Your task to perform on an android device: uninstall "DoorDash - Dasher" Image 0: 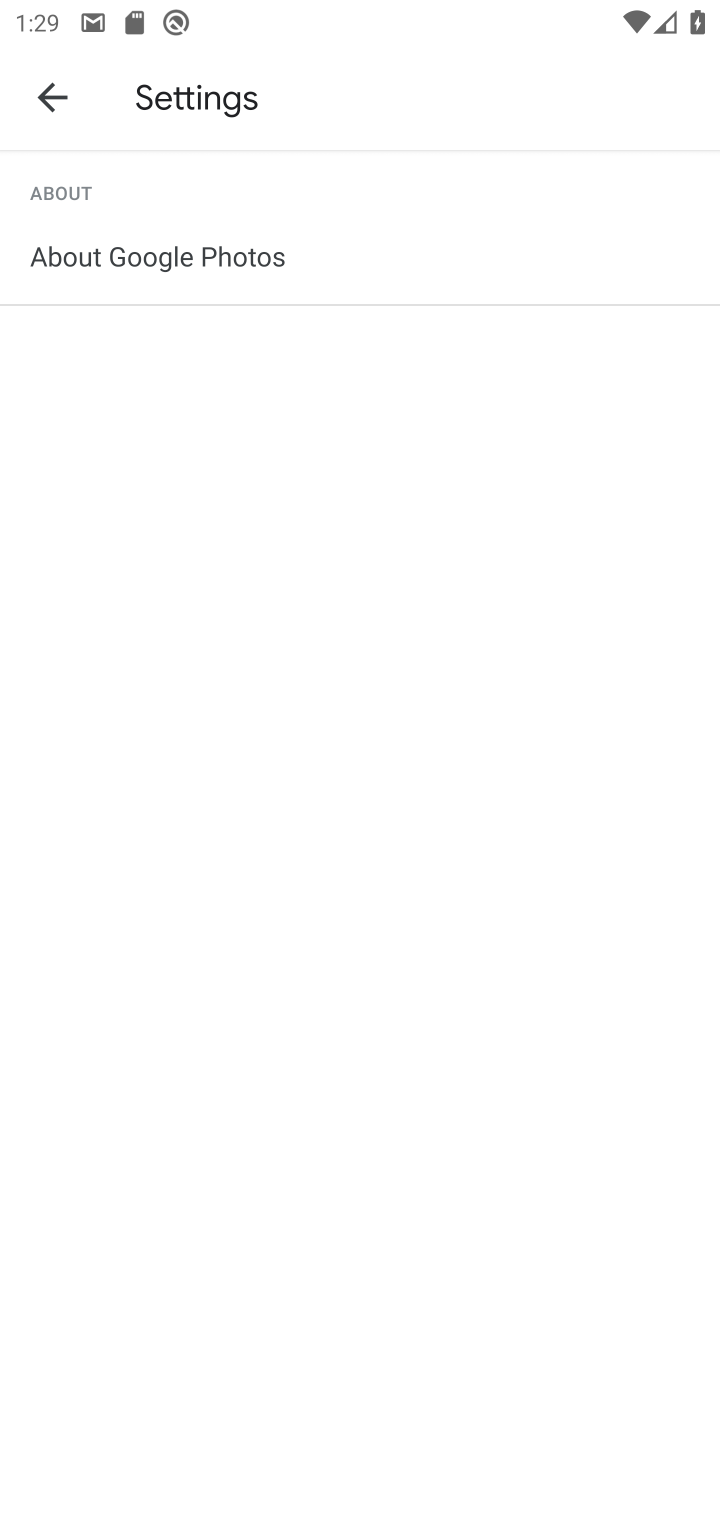
Step 0: press home button
Your task to perform on an android device: uninstall "DoorDash - Dasher" Image 1: 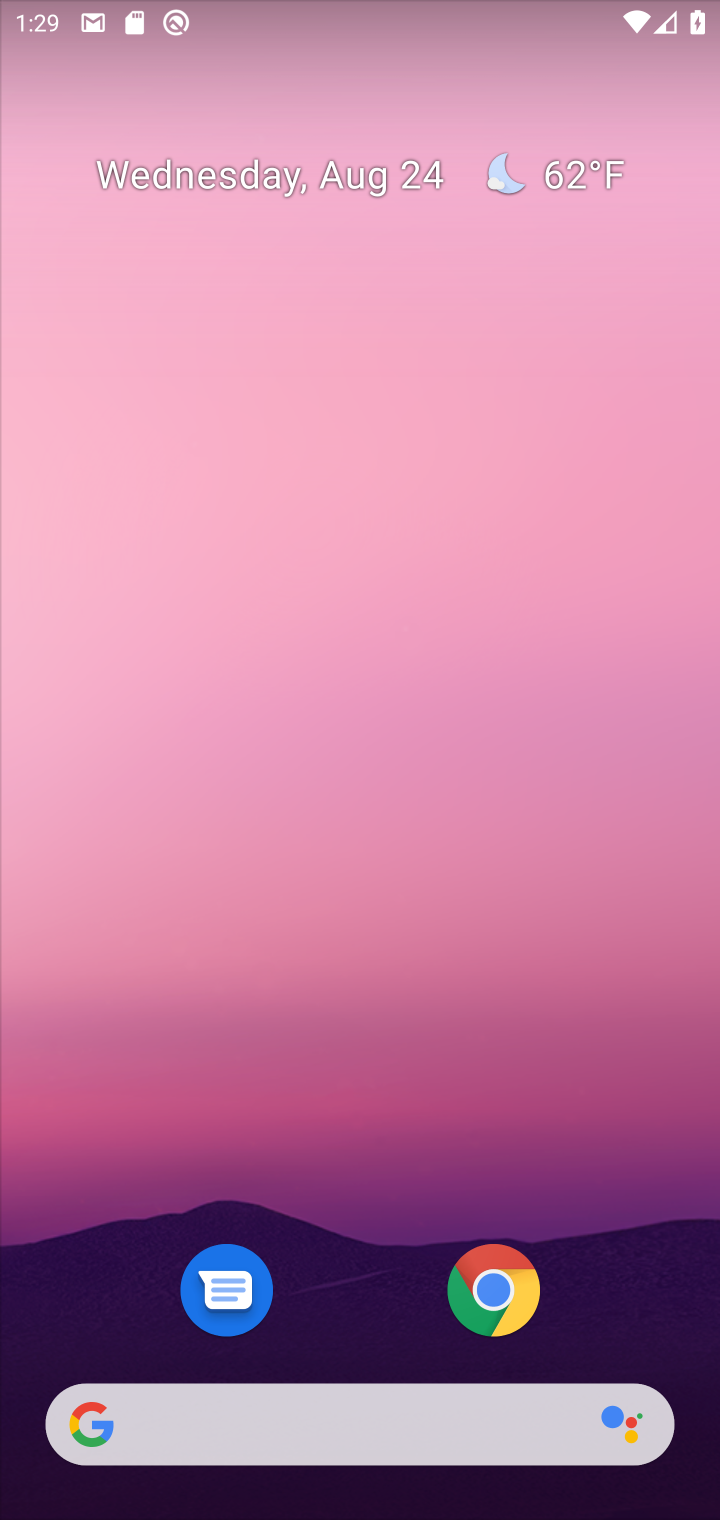
Step 1: click (320, 391)
Your task to perform on an android device: uninstall "DoorDash - Dasher" Image 2: 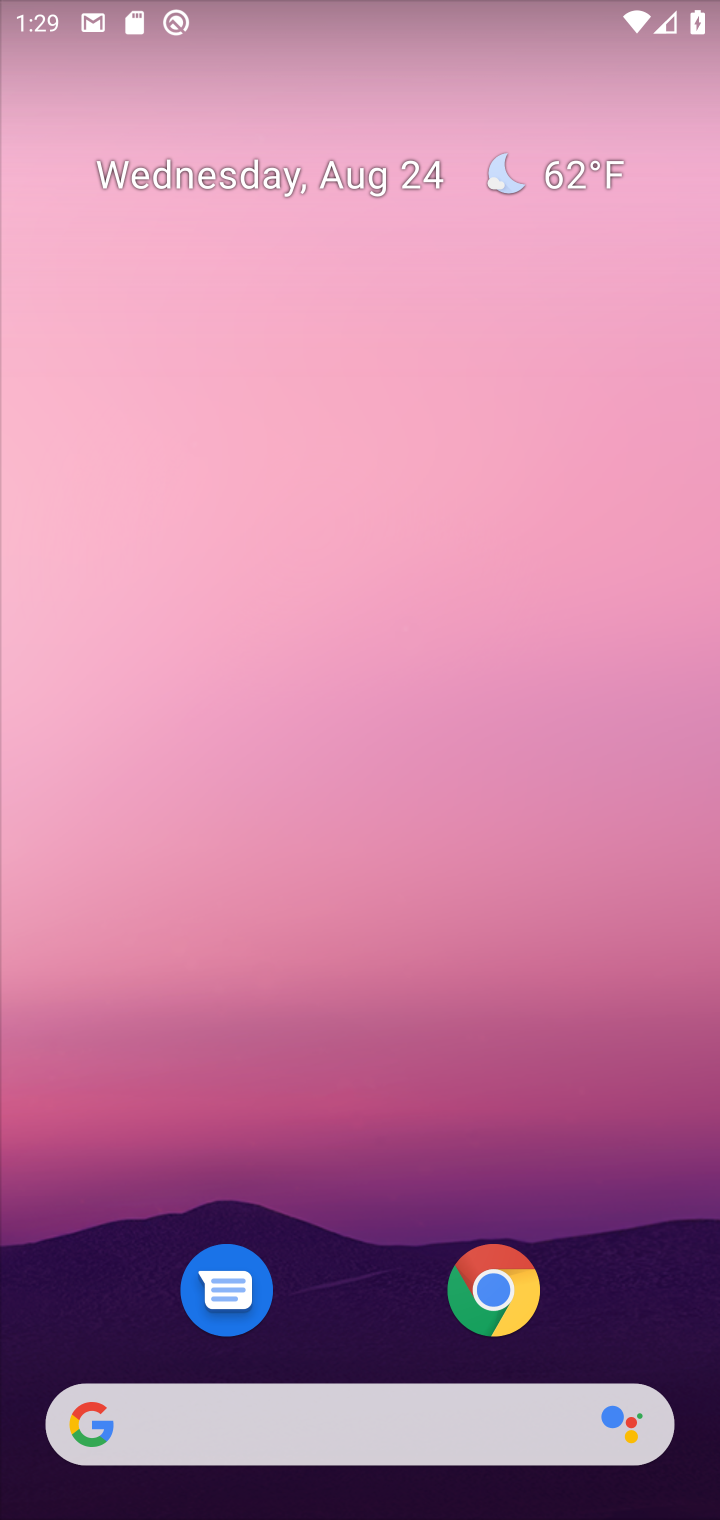
Step 2: drag from (321, 1150) to (334, 168)
Your task to perform on an android device: uninstall "DoorDash - Dasher" Image 3: 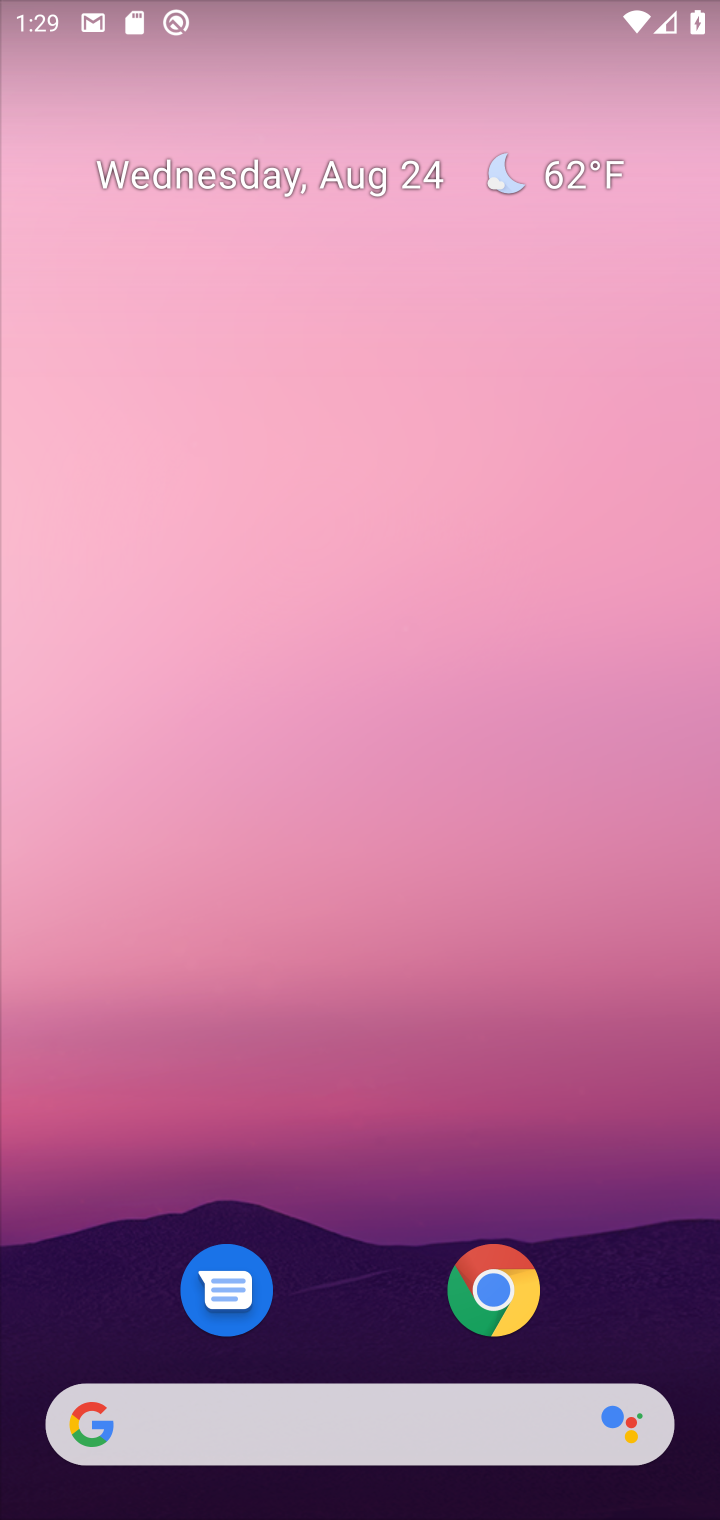
Step 3: drag from (313, 1234) to (335, 494)
Your task to perform on an android device: uninstall "DoorDash - Dasher" Image 4: 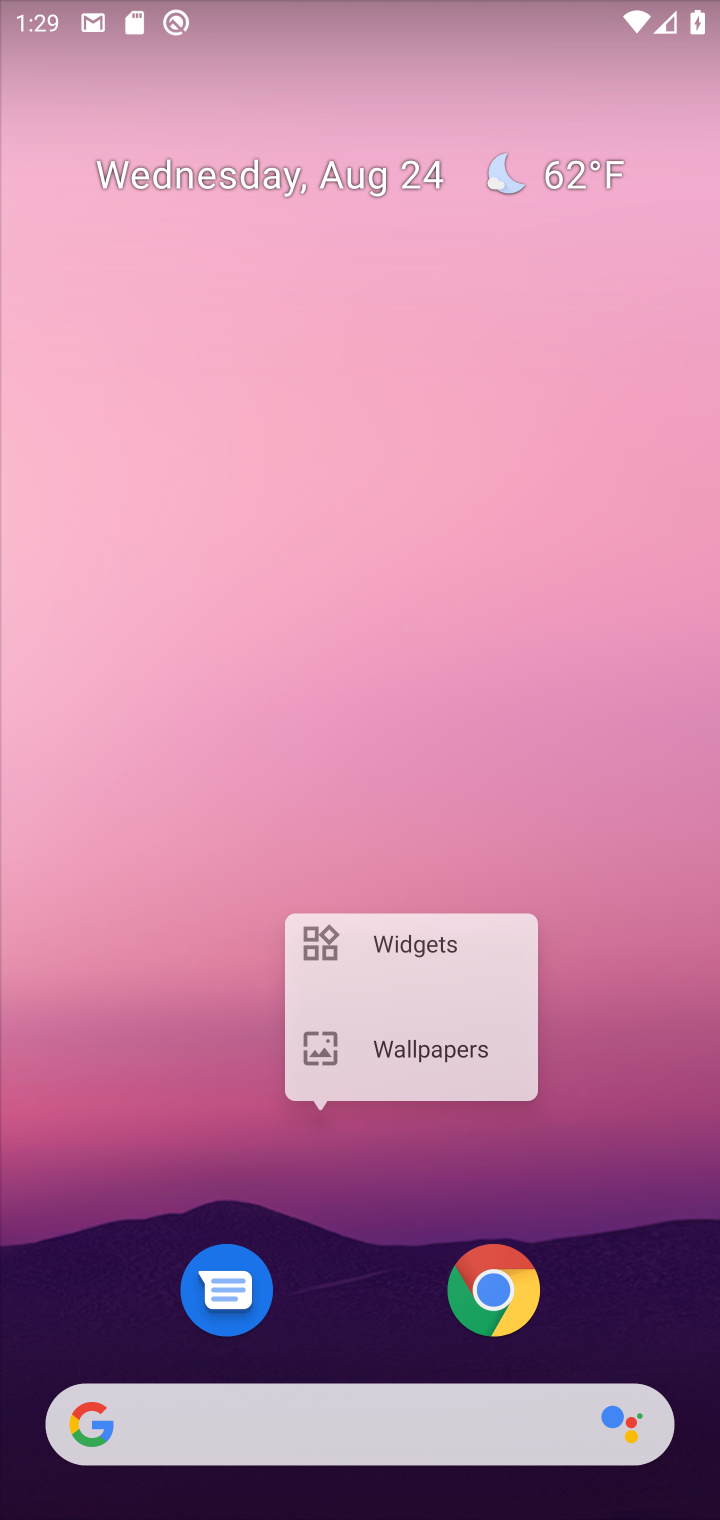
Step 4: drag from (314, 1032) to (362, 192)
Your task to perform on an android device: uninstall "DoorDash - Dasher" Image 5: 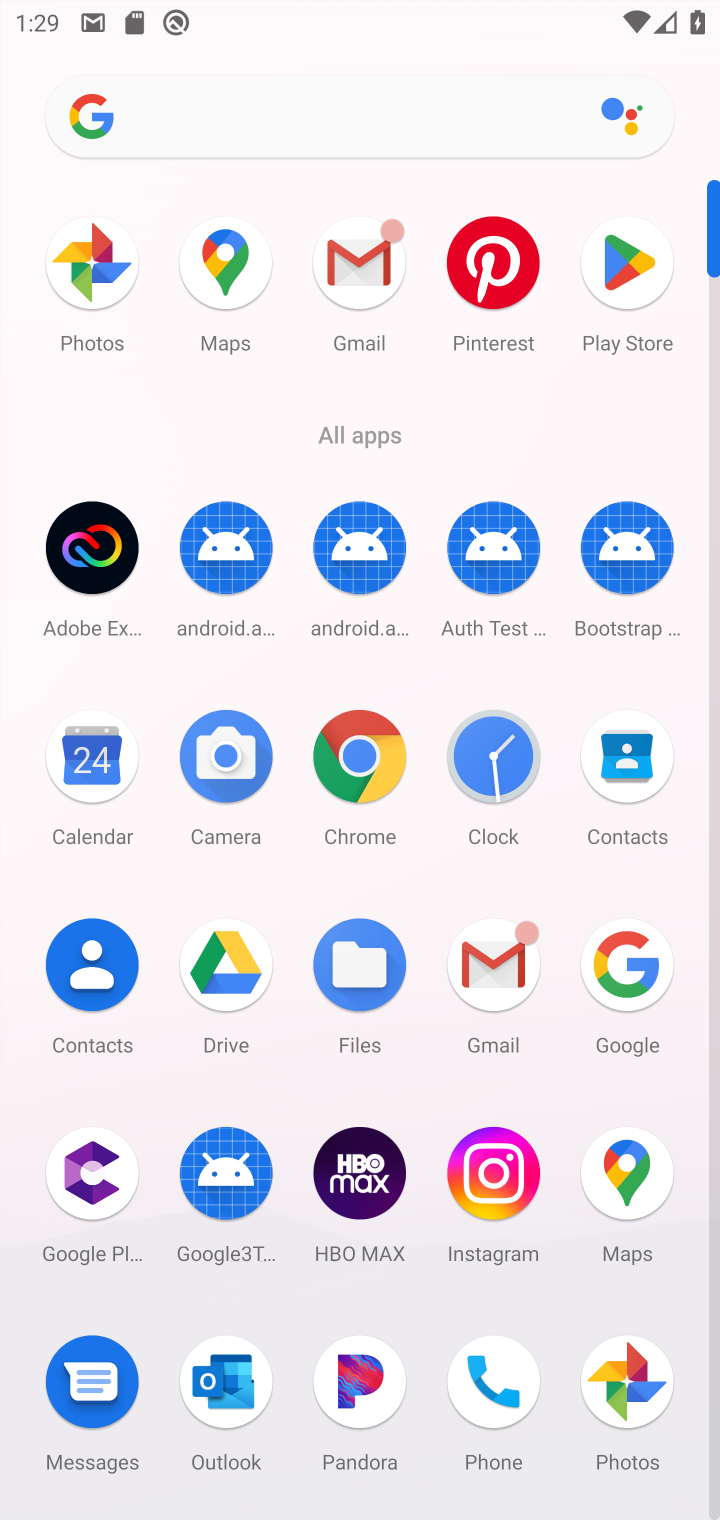
Step 5: drag from (334, 1318) to (481, 556)
Your task to perform on an android device: uninstall "DoorDash - Dasher" Image 6: 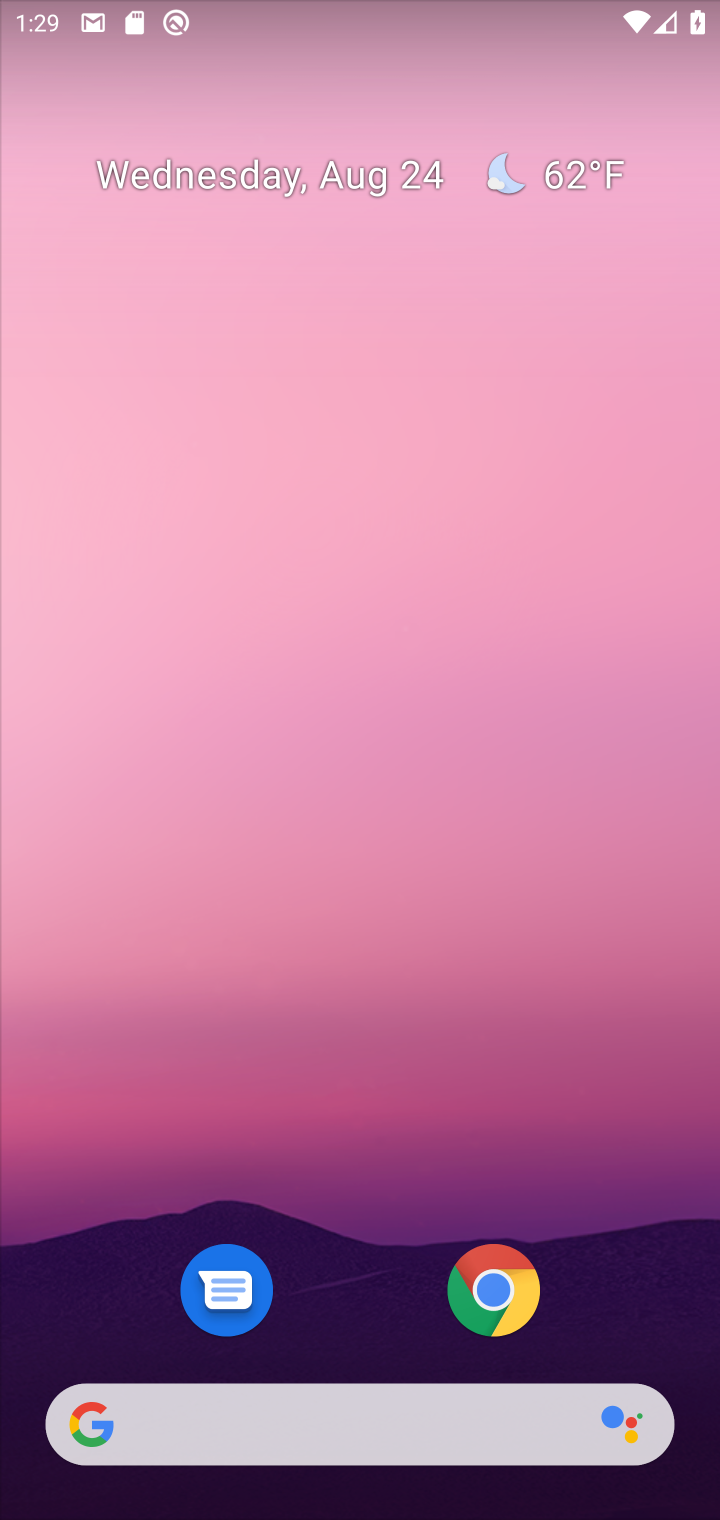
Step 6: click (632, 265)
Your task to perform on an android device: uninstall "DoorDash - Dasher" Image 7: 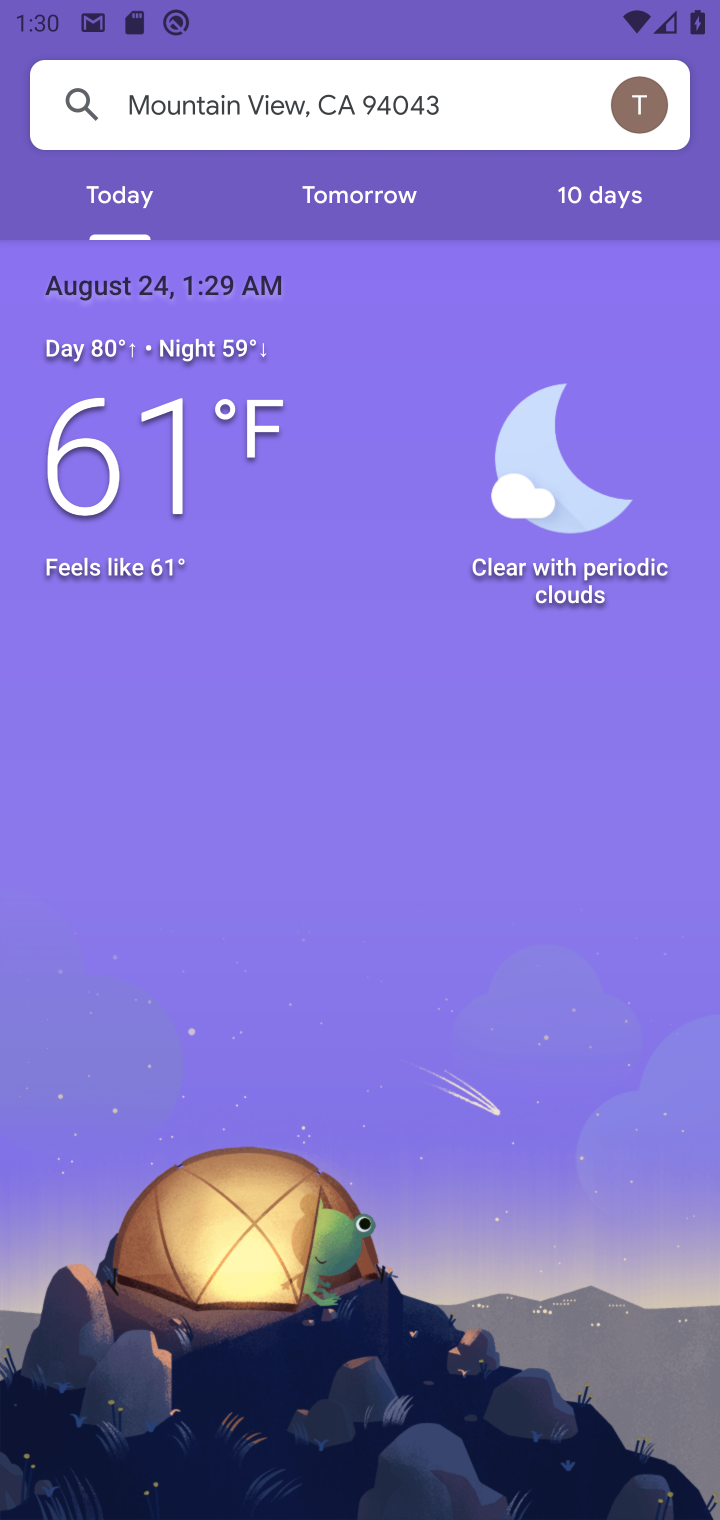
Step 7: press home button
Your task to perform on an android device: uninstall "DoorDash - Dasher" Image 8: 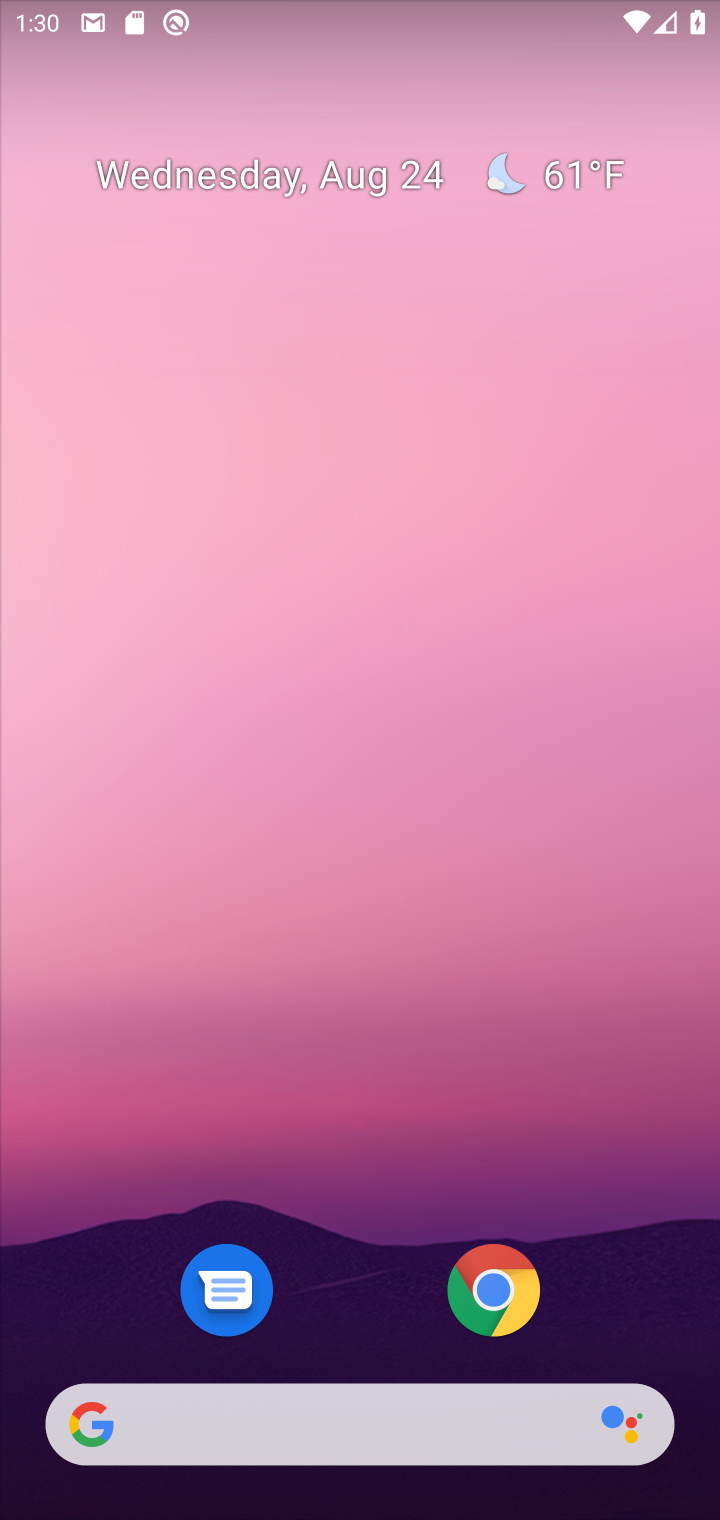
Step 8: drag from (328, 1234) to (258, 222)
Your task to perform on an android device: uninstall "DoorDash - Dasher" Image 9: 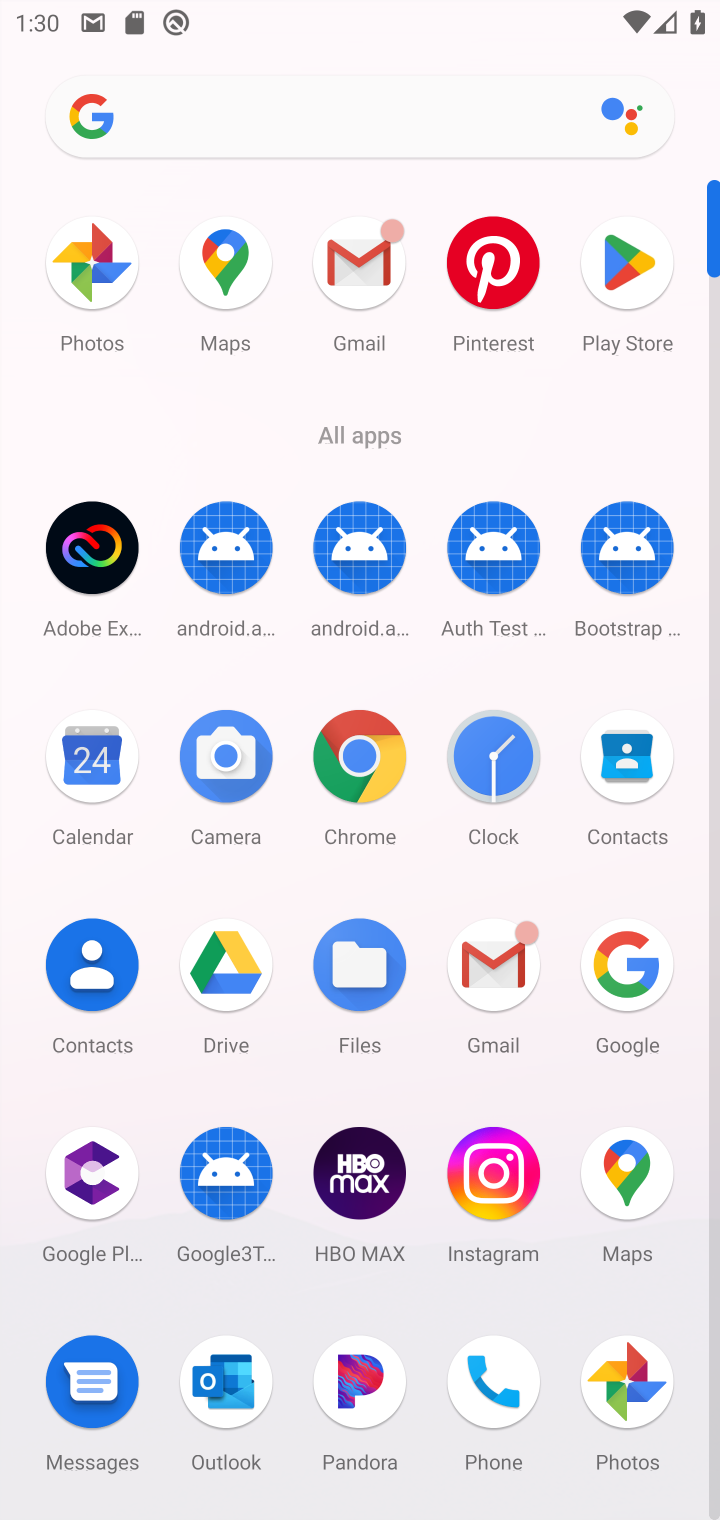
Step 9: click (627, 259)
Your task to perform on an android device: uninstall "DoorDash - Dasher" Image 10: 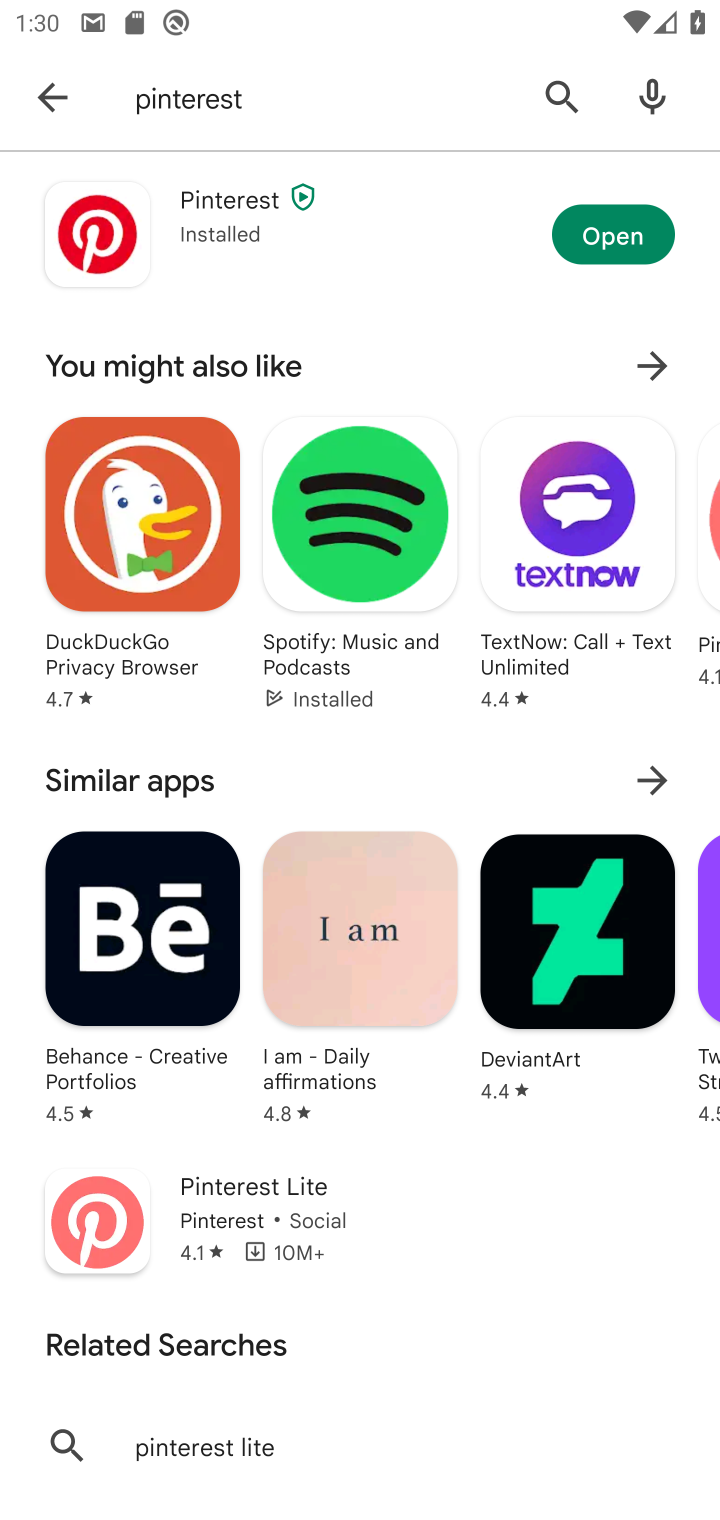
Step 10: click (53, 100)
Your task to perform on an android device: uninstall "DoorDash - Dasher" Image 11: 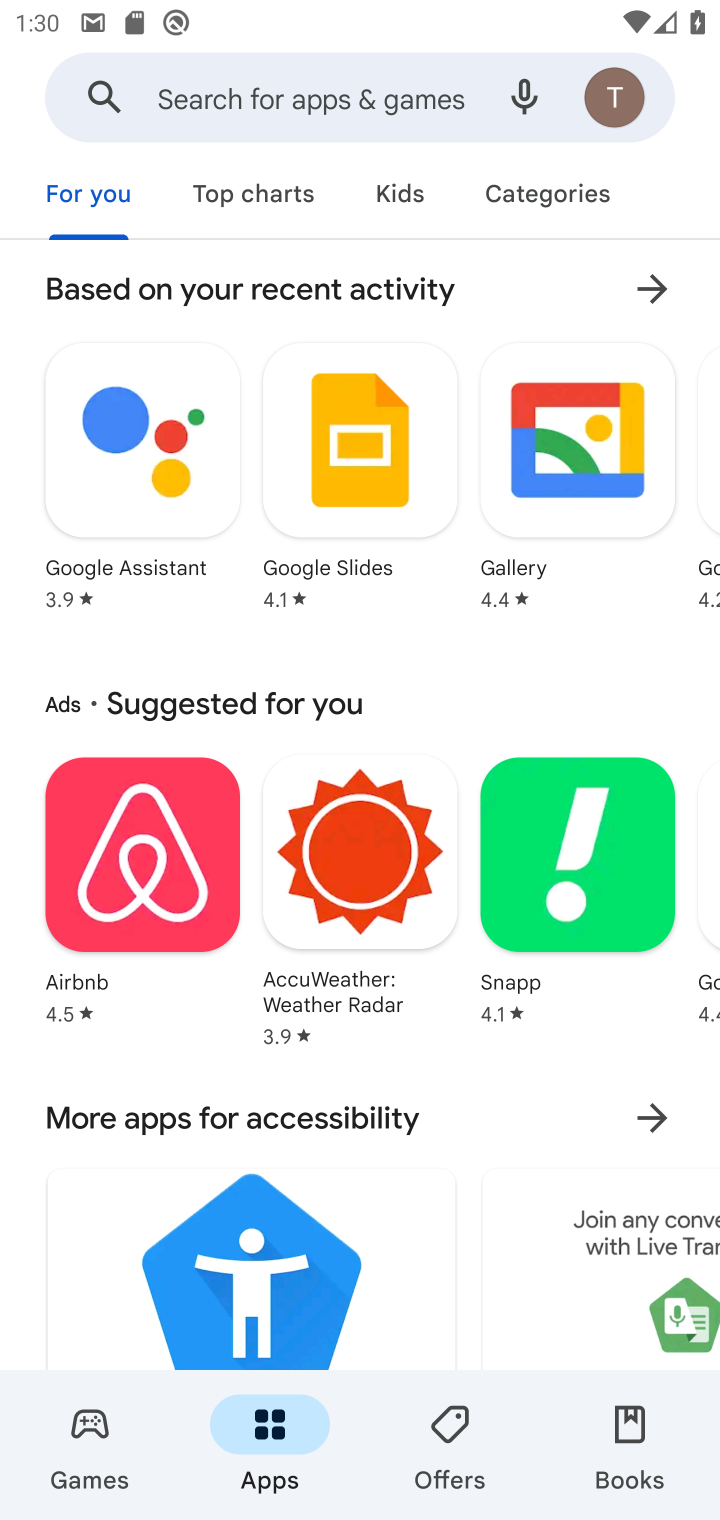
Step 11: click (241, 100)
Your task to perform on an android device: uninstall "DoorDash - Dasher" Image 12: 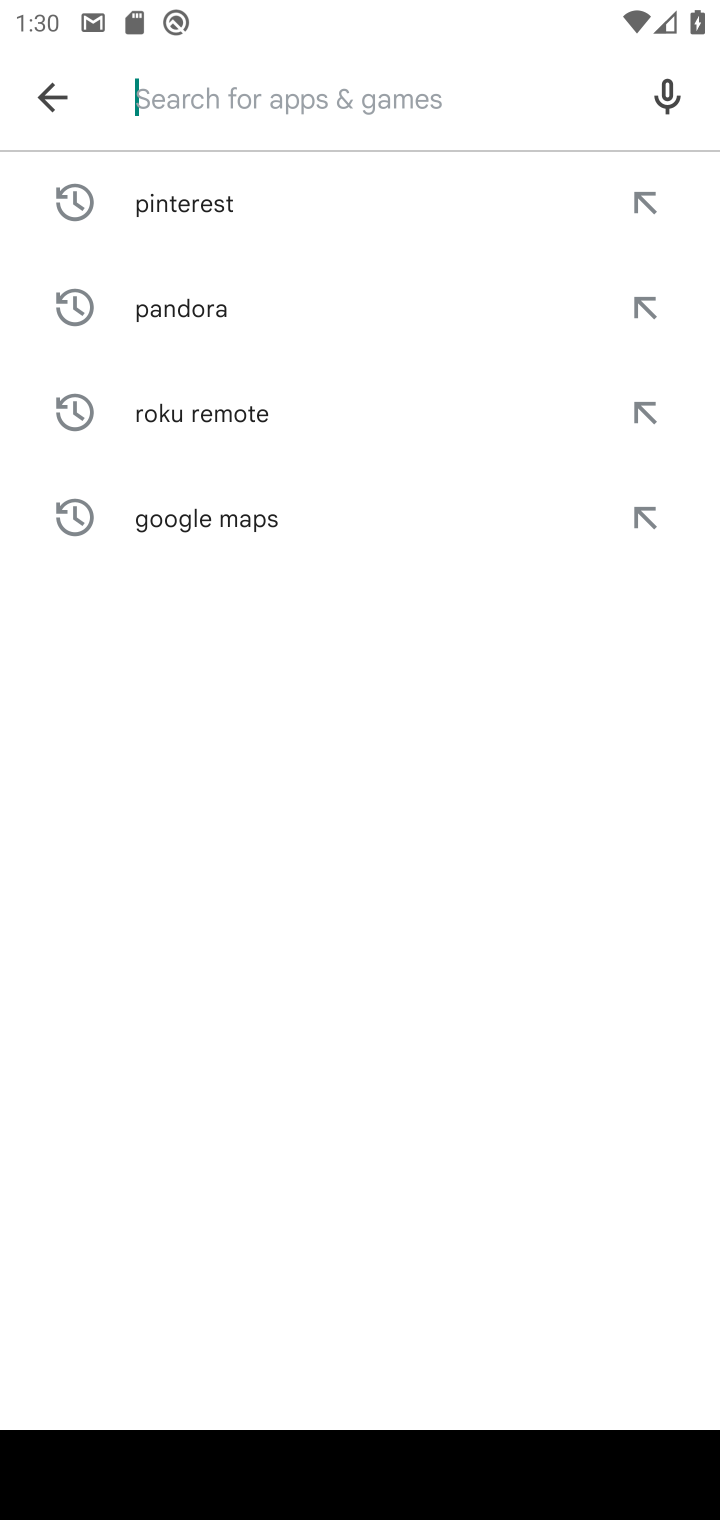
Step 12: type "DoorDash - Dasher"
Your task to perform on an android device: uninstall "DoorDash - Dasher" Image 13: 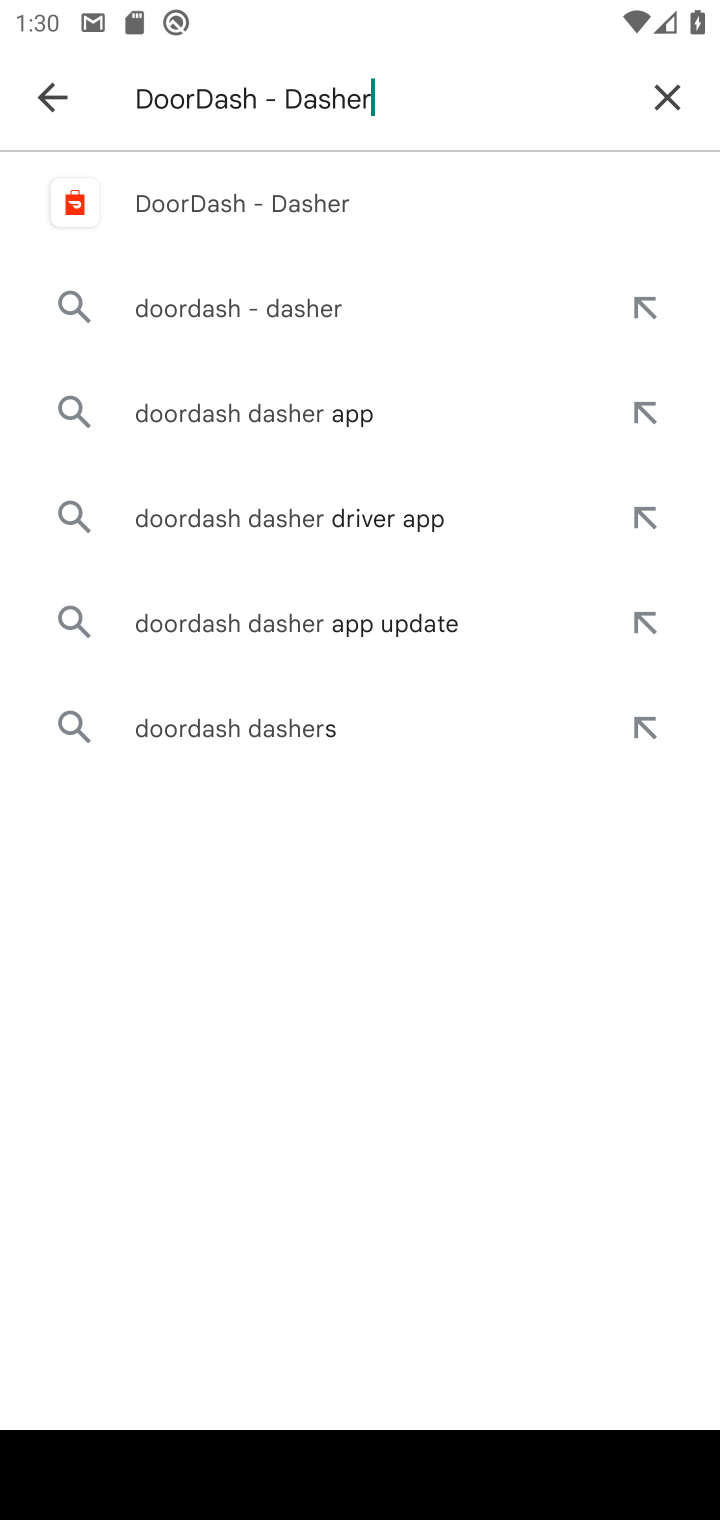
Step 13: click (192, 203)
Your task to perform on an android device: uninstall "DoorDash - Dasher" Image 14: 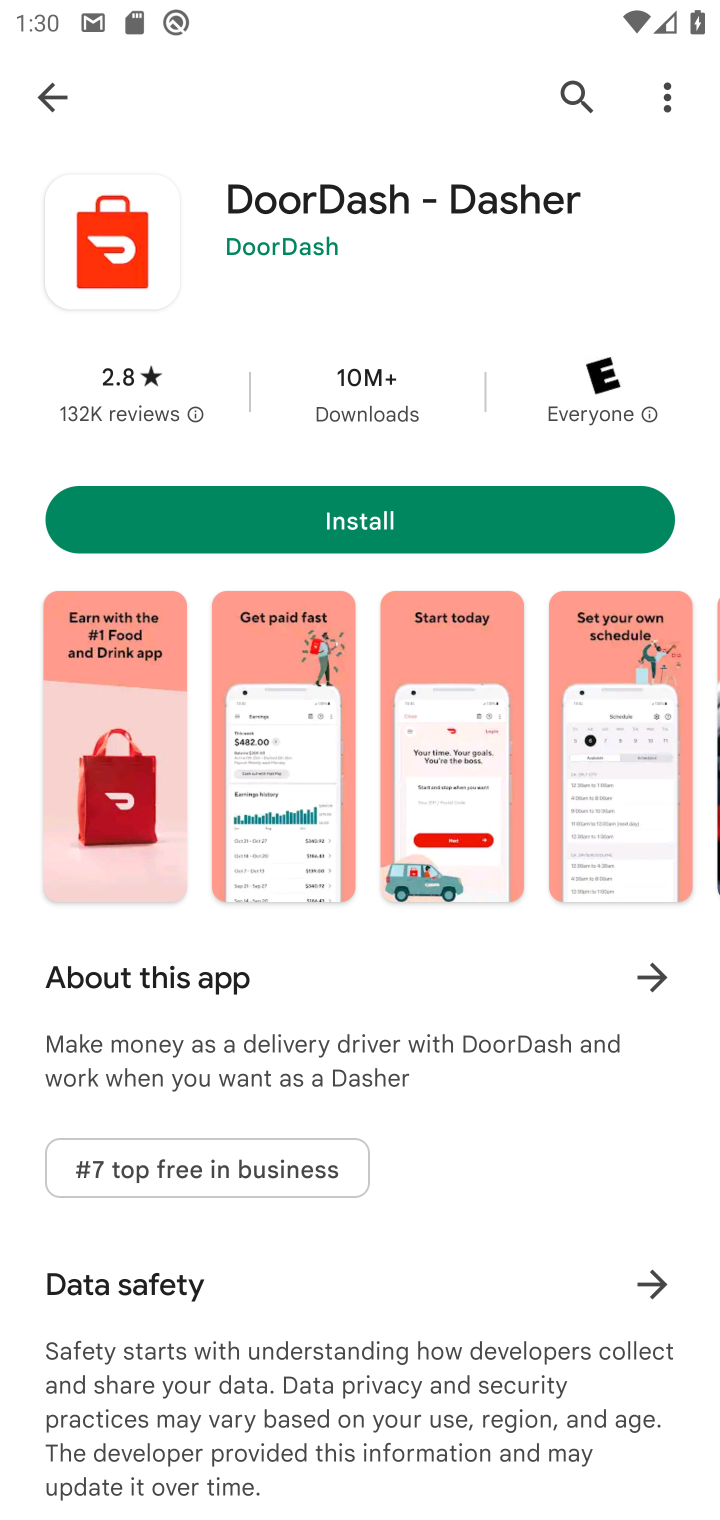
Step 14: task complete